Your task to perform on an android device: toggle wifi Image 0: 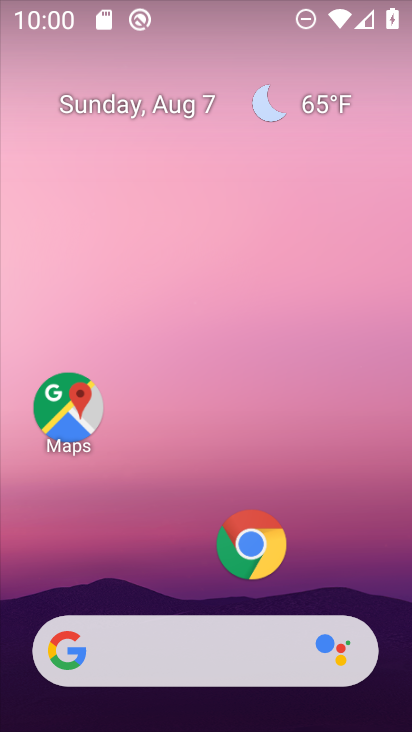
Step 0: drag from (232, 624) to (266, 36)
Your task to perform on an android device: toggle wifi Image 1: 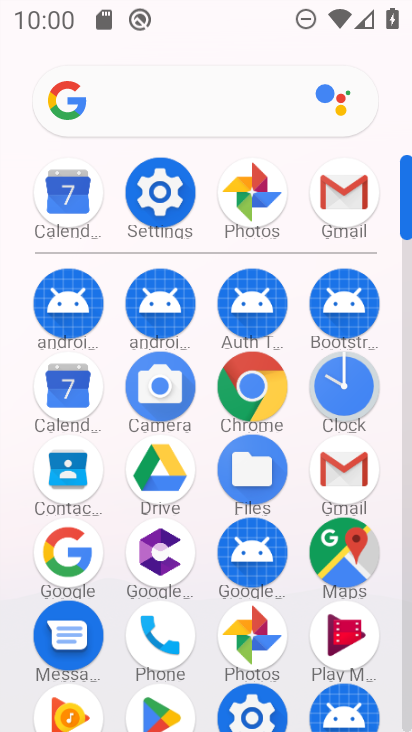
Step 1: click (154, 180)
Your task to perform on an android device: toggle wifi Image 2: 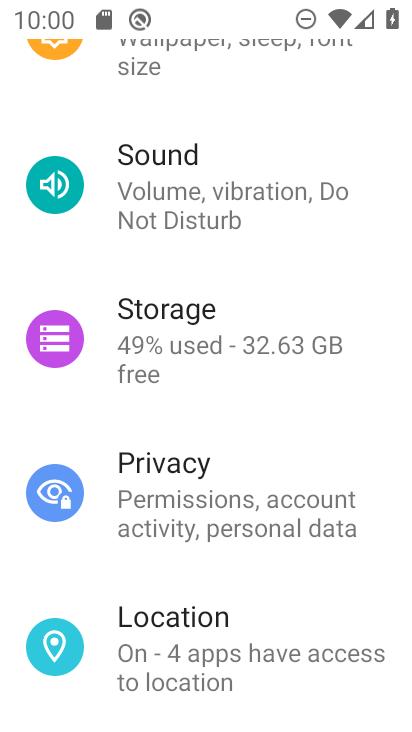
Step 2: drag from (241, 239) to (295, 724)
Your task to perform on an android device: toggle wifi Image 3: 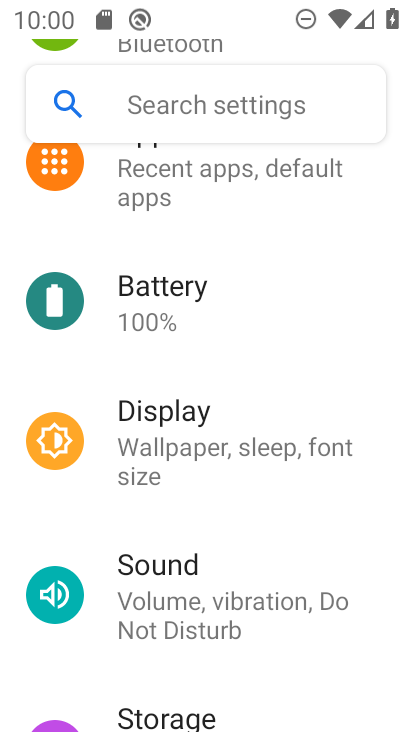
Step 3: drag from (310, 267) to (233, 727)
Your task to perform on an android device: toggle wifi Image 4: 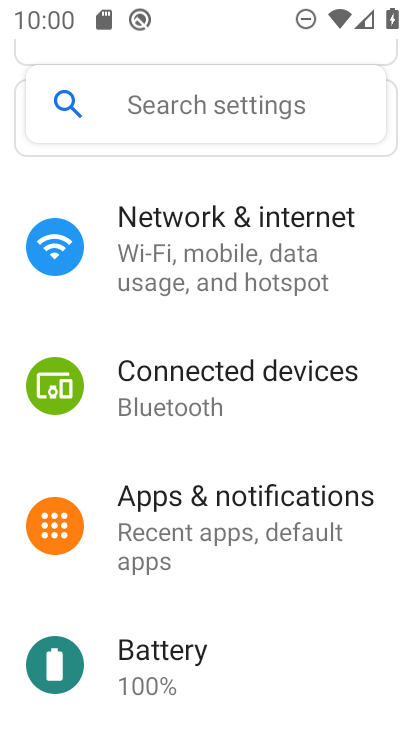
Step 4: click (221, 238)
Your task to perform on an android device: toggle wifi Image 5: 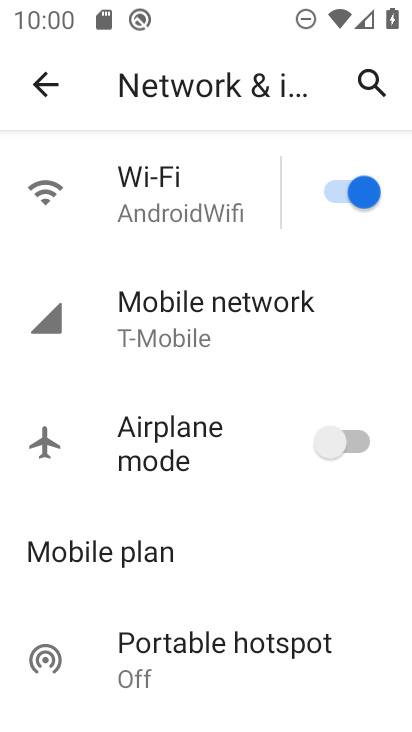
Step 5: click (92, 205)
Your task to perform on an android device: toggle wifi Image 6: 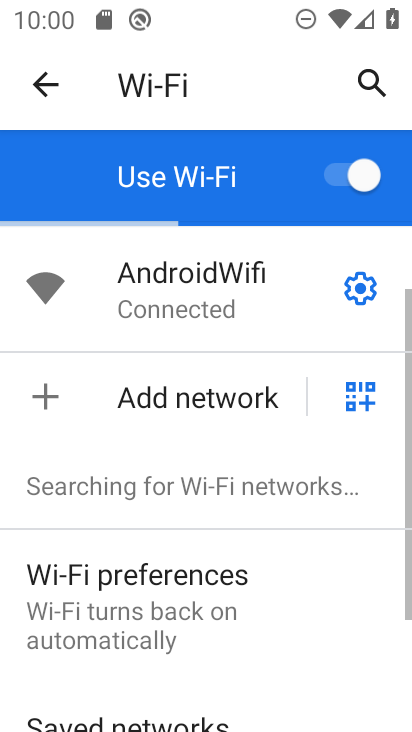
Step 6: click (339, 172)
Your task to perform on an android device: toggle wifi Image 7: 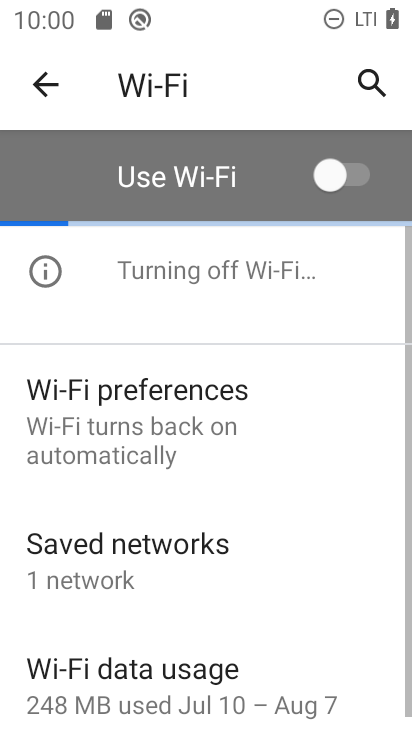
Step 7: task complete